Your task to perform on an android device: Open internet settings Image 0: 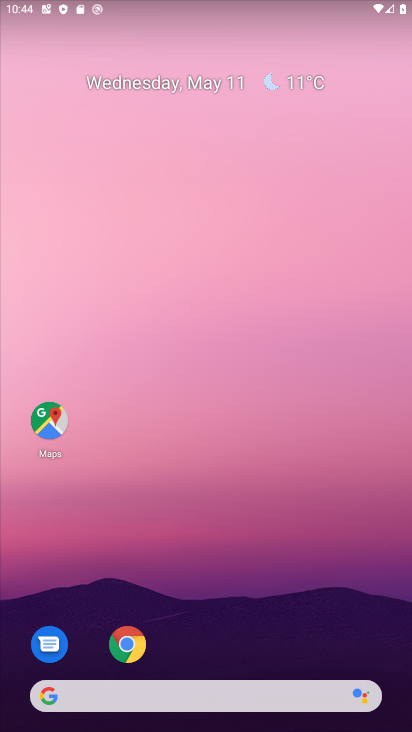
Step 0: click (133, 649)
Your task to perform on an android device: Open internet settings Image 1: 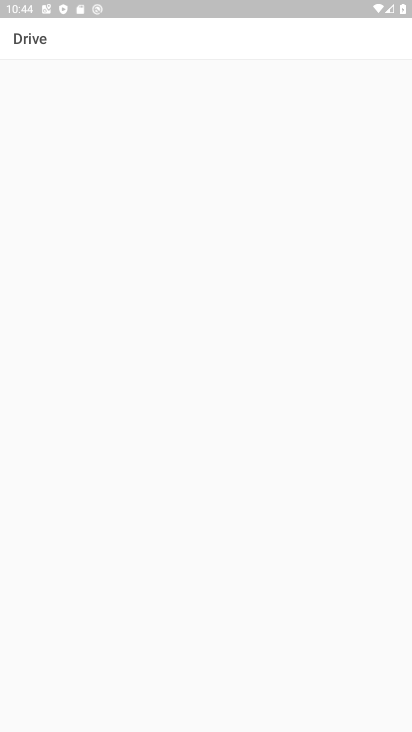
Step 1: press home button
Your task to perform on an android device: Open internet settings Image 2: 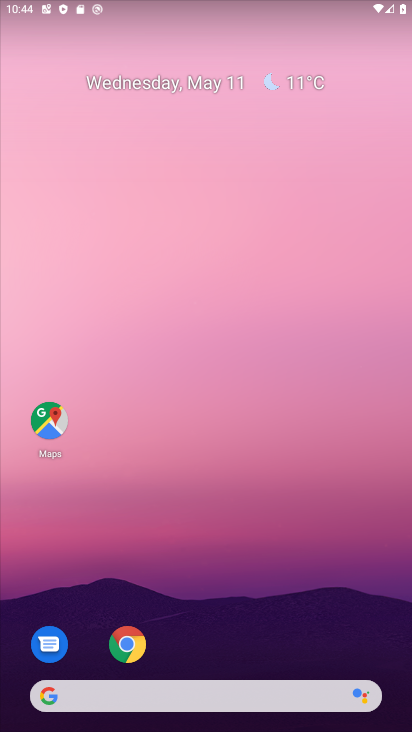
Step 2: drag from (225, 651) to (263, 16)
Your task to perform on an android device: Open internet settings Image 3: 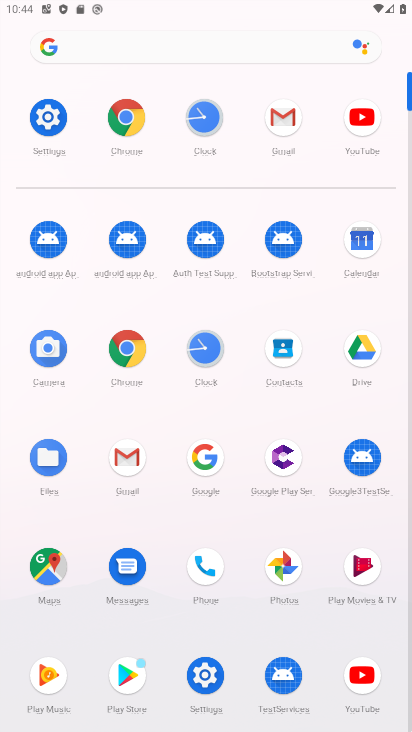
Step 3: click (42, 128)
Your task to perform on an android device: Open internet settings Image 4: 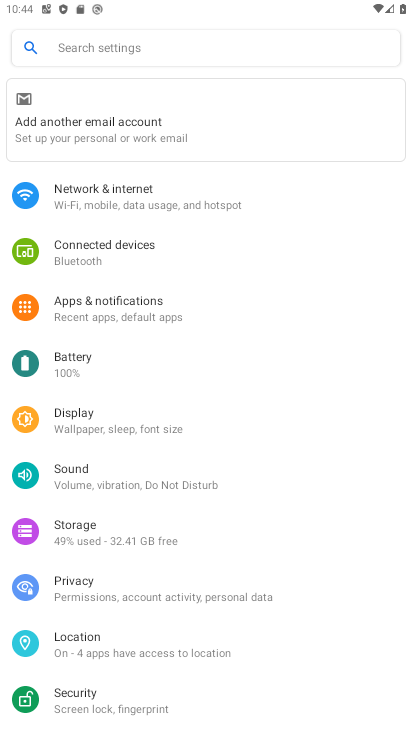
Step 4: click (126, 205)
Your task to perform on an android device: Open internet settings Image 5: 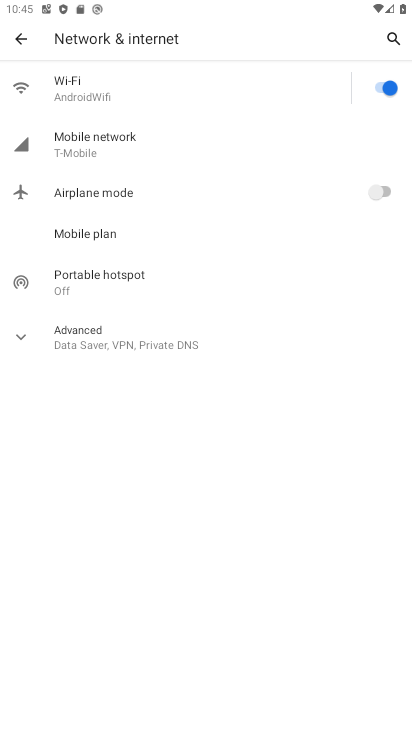
Step 5: click (12, 346)
Your task to perform on an android device: Open internet settings Image 6: 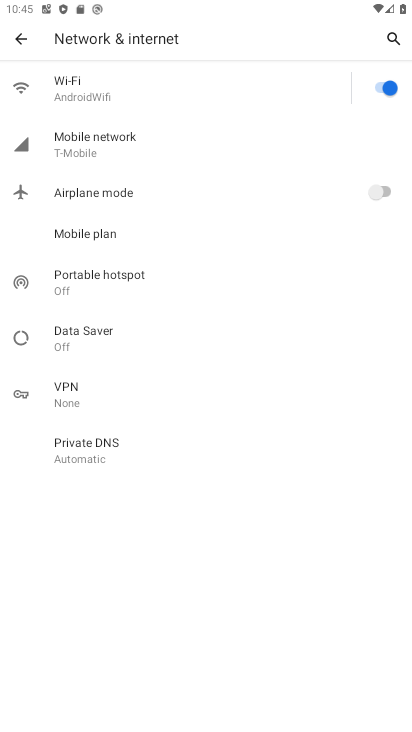
Step 6: task complete